Your task to perform on an android device: Turn on the flashlight Image 0: 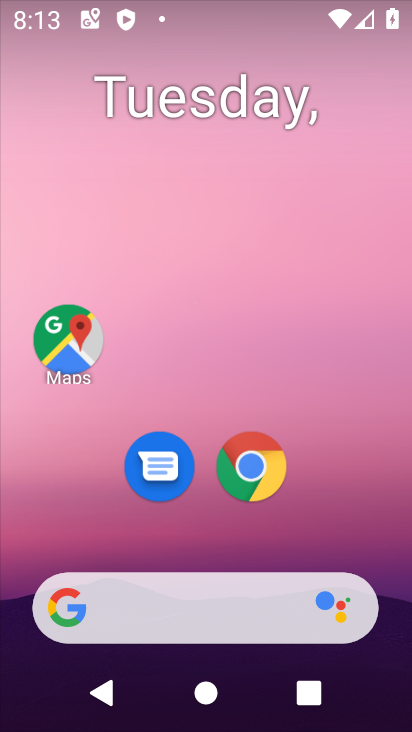
Step 0: drag from (369, 526) to (325, 94)
Your task to perform on an android device: Turn on the flashlight Image 1: 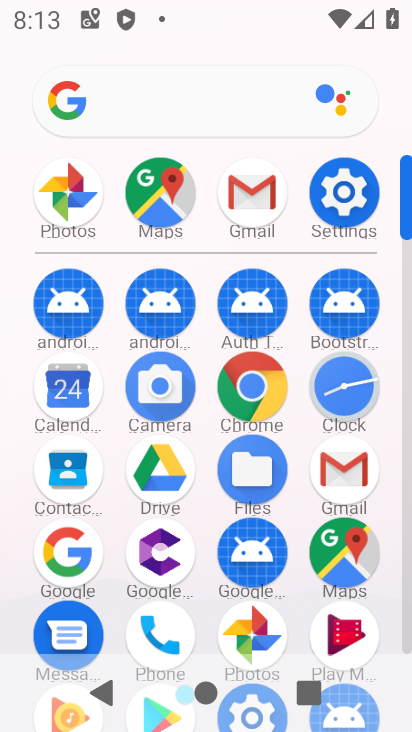
Step 1: click (349, 195)
Your task to perform on an android device: Turn on the flashlight Image 2: 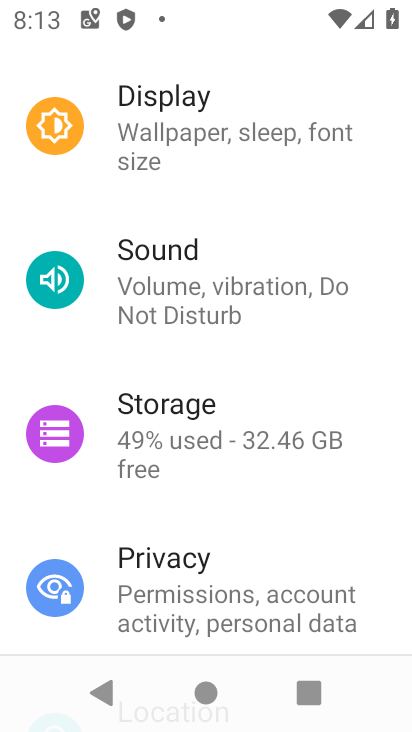
Step 2: click (298, 210)
Your task to perform on an android device: Turn on the flashlight Image 3: 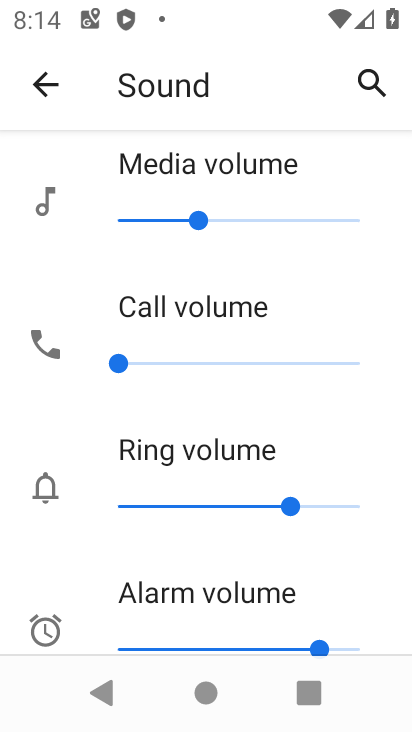
Step 3: task complete